Your task to perform on an android device: check out phone information Image 0: 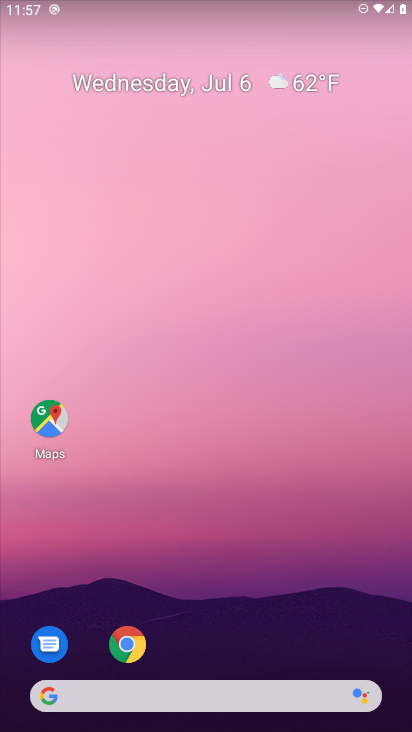
Step 0: press home button
Your task to perform on an android device: check out phone information Image 1: 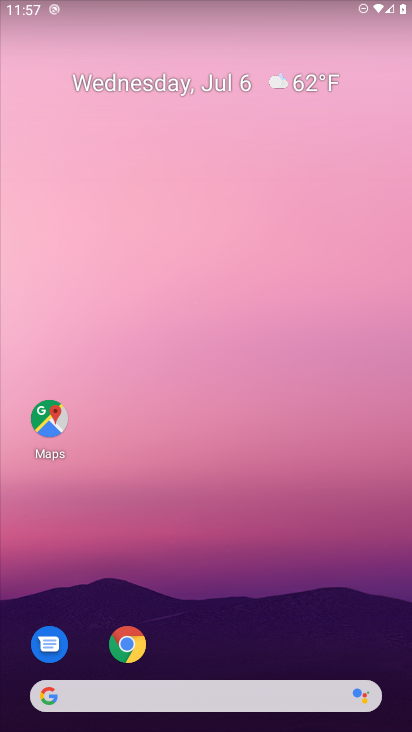
Step 1: drag from (321, 606) to (345, 153)
Your task to perform on an android device: check out phone information Image 2: 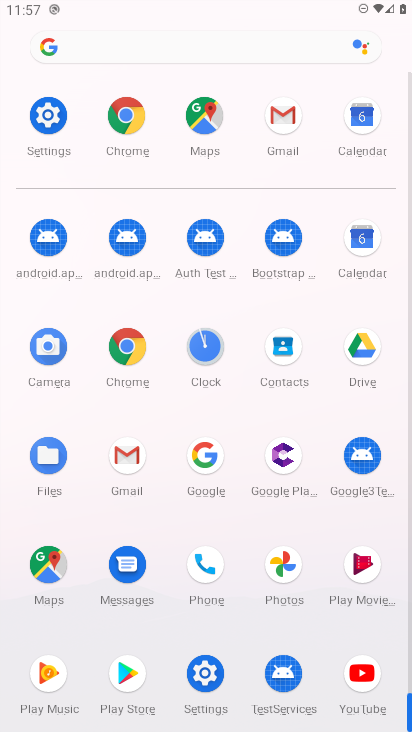
Step 2: click (56, 121)
Your task to perform on an android device: check out phone information Image 3: 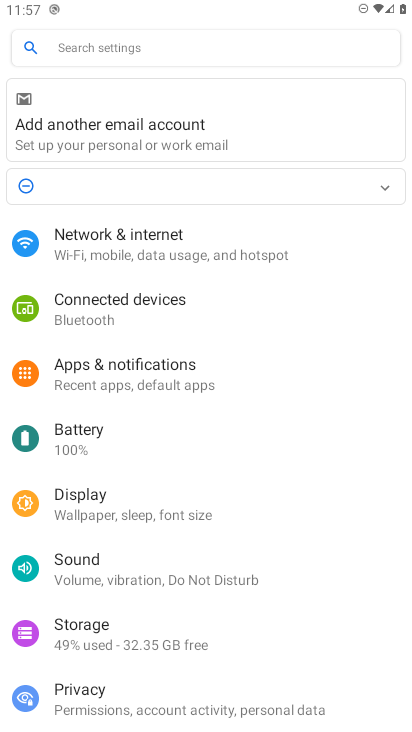
Step 3: drag from (279, 676) to (246, 113)
Your task to perform on an android device: check out phone information Image 4: 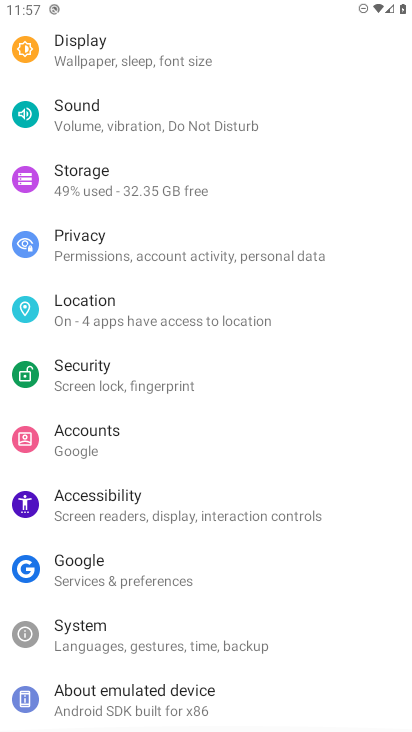
Step 4: drag from (305, 657) to (301, 243)
Your task to perform on an android device: check out phone information Image 5: 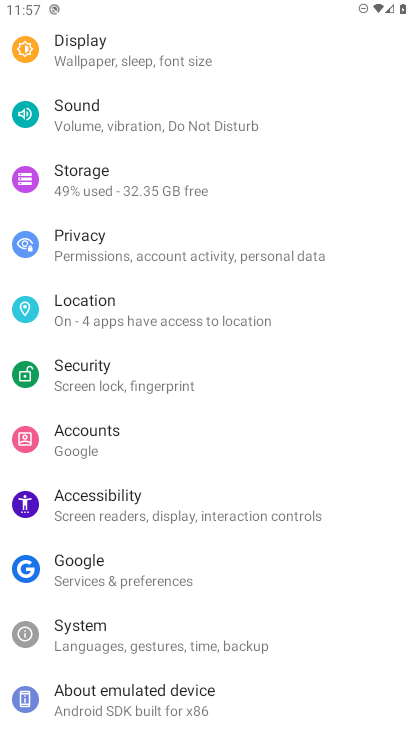
Step 5: click (186, 692)
Your task to perform on an android device: check out phone information Image 6: 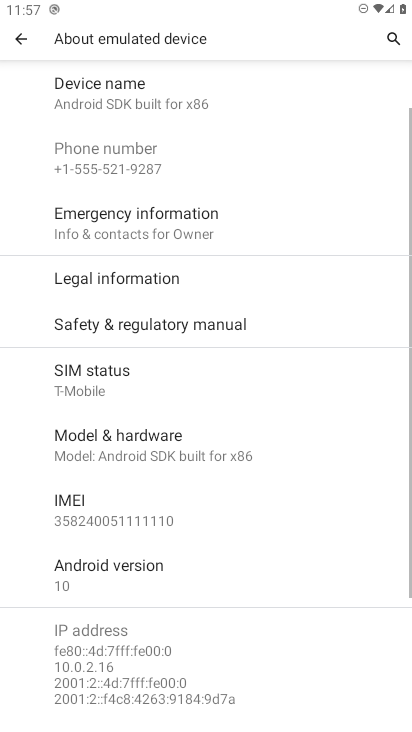
Step 6: click (207, 225)
Your task to perform on an android device: check out phone information Image 7: 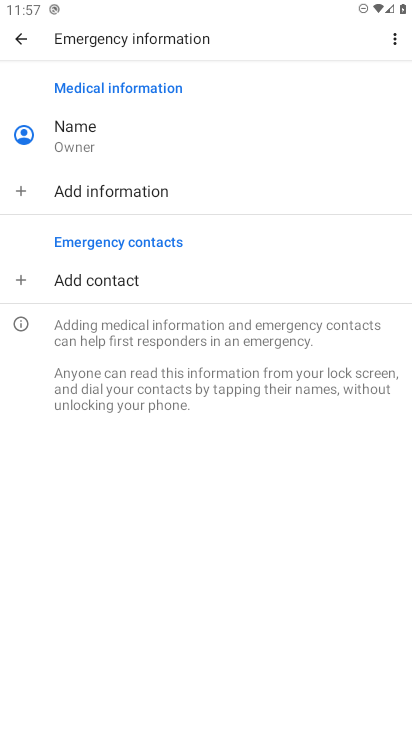
Step 7: task complete